Your task to perform on an android device: change timer sound Image 0: 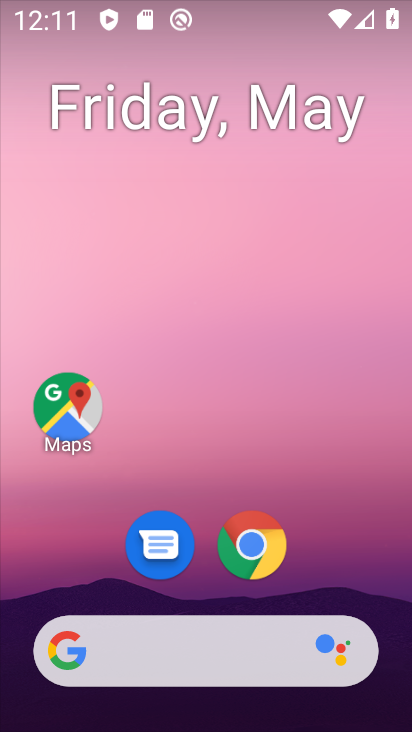
Step 0: drag from (302, 580) to (287, 66)
Your task to perform on an android device: change timer sound Image 1: 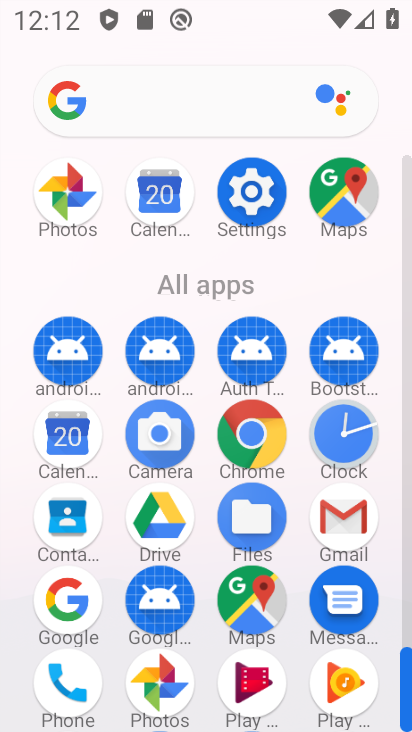
Step 1: click (350, 458)
Your task to perform on an android device: change timer sound Image 2: 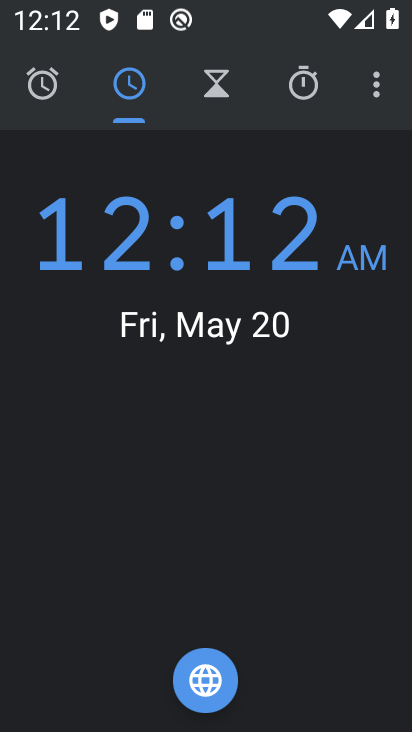
Step 2: click (373, 87)
Your task to perform on an android device: change timer sound Image 3: 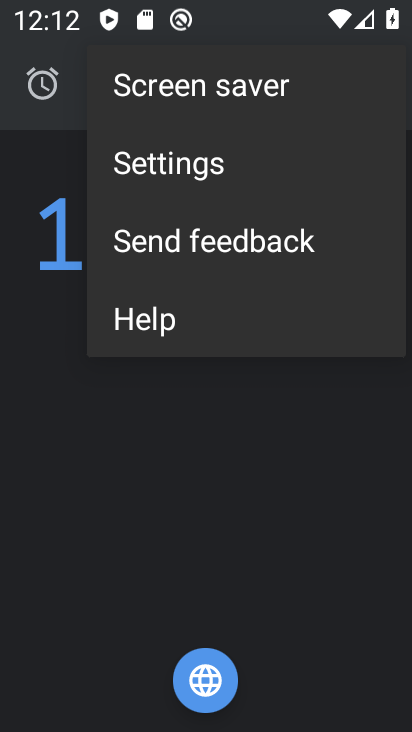
Step 3: click (183, 173)
Your task to perform on an android device: change timer sound Image 4: 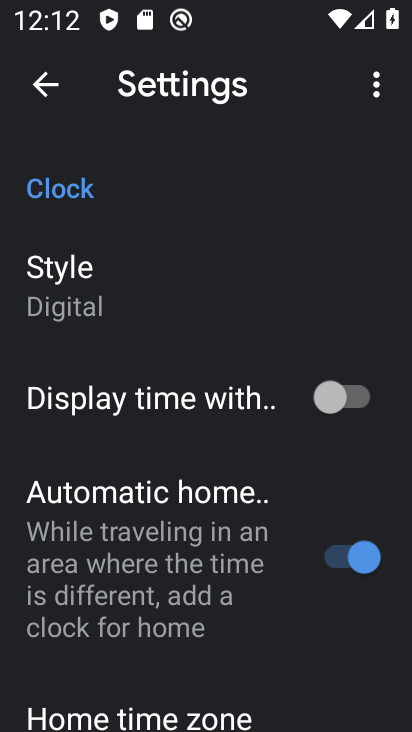
Step 4: drag from (171, 650) to (177, 314)
Your task to perform on an android device: change timer sound Image 5: 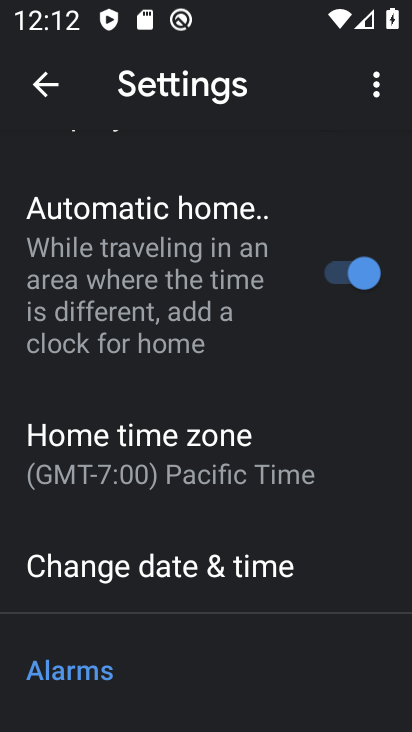
Step 5: drag from (161, 625) to (142, 434)
Your task to perform on an android device: change timer sound Image 6: 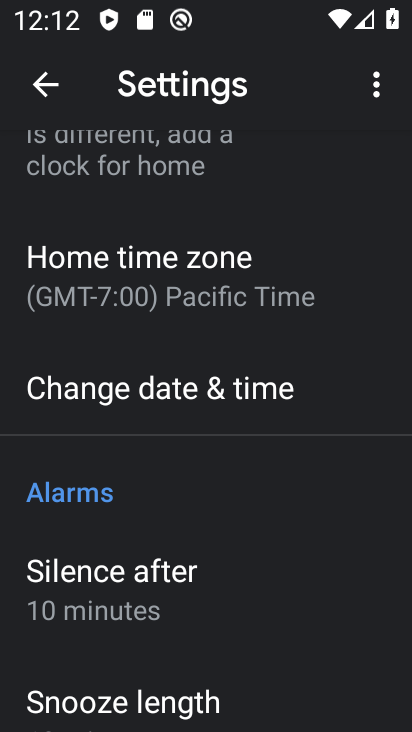
Step 6: drag from (178, 666) to (165, 345)
Your task to perform on an android device: change timer sound Image 7: 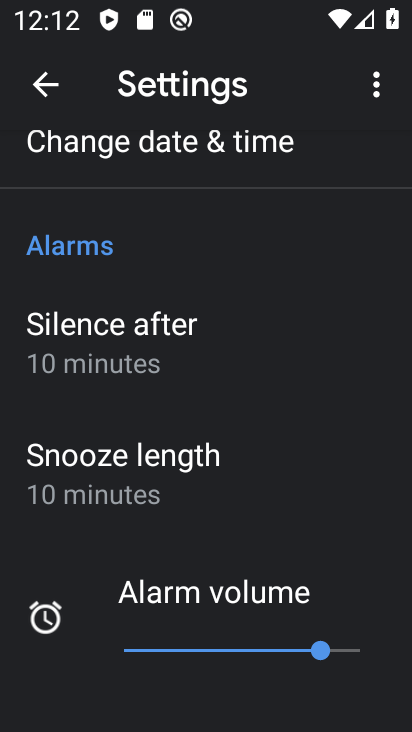
Step 7: drag from (172, 636) to (163, 385)
Your task to perform on an android device: change timer sound Image 8: 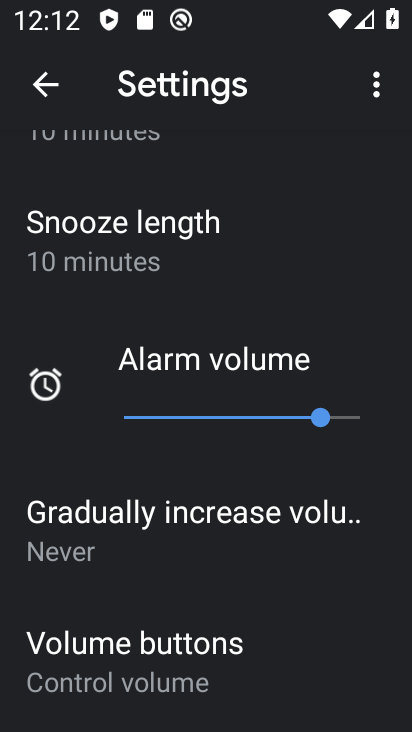
Step 8: drag from (264, 634) to (250, 377)
Your task to perform on an android device: change timer sound Image 9: 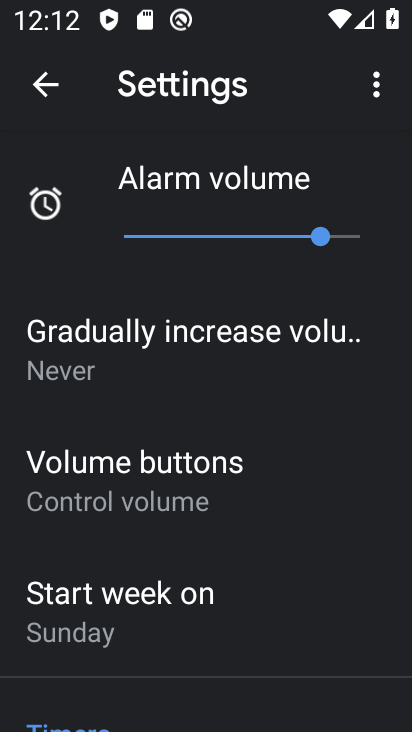
Step 9: drag from (237, 522) to (215, 263)
Your task to perform on an android device: change timer sound Image 10: 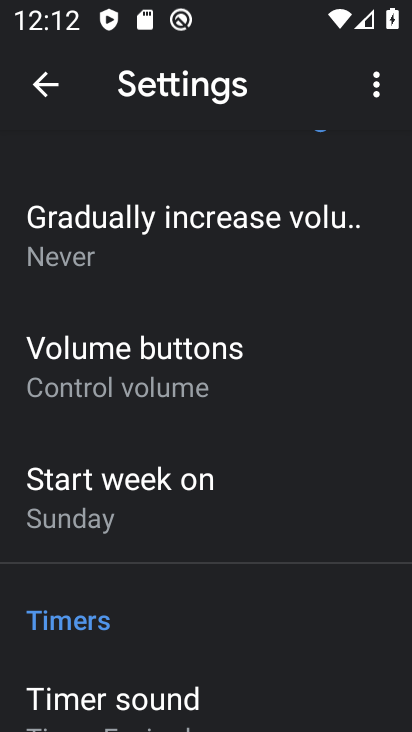
Step 10: click (209, 262)
Your task to perform on an android device: change timer sound Image 11: 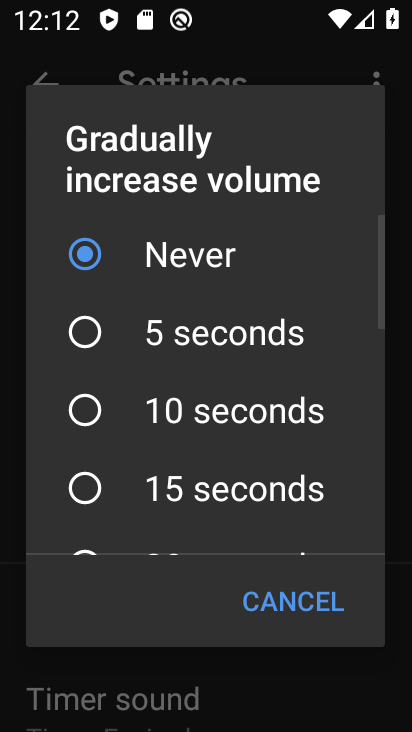
Step 11: click (321, 607)
Your task to perform on an android device: change timer sound Image 12: 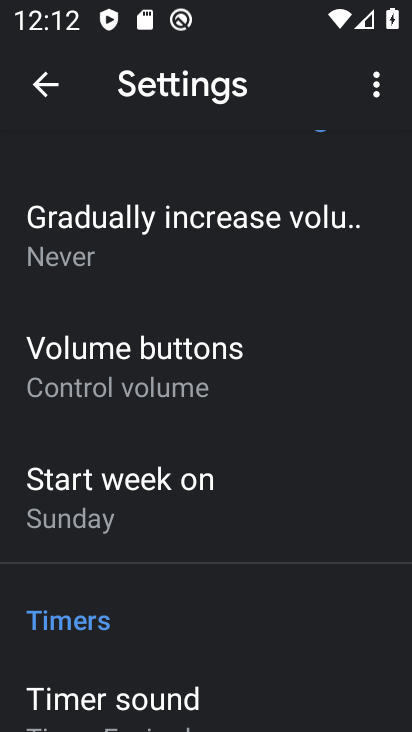
Step 12: drag from (273, 641) to (243, 303)
Your task to perform on an android device: change timer sound Image 13: 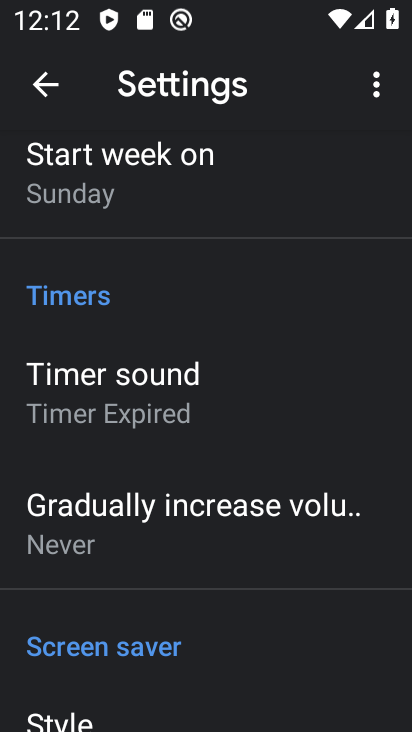
Step 13: click (111, 386)
Your task to perform on an android device: change timer sound Image 14: 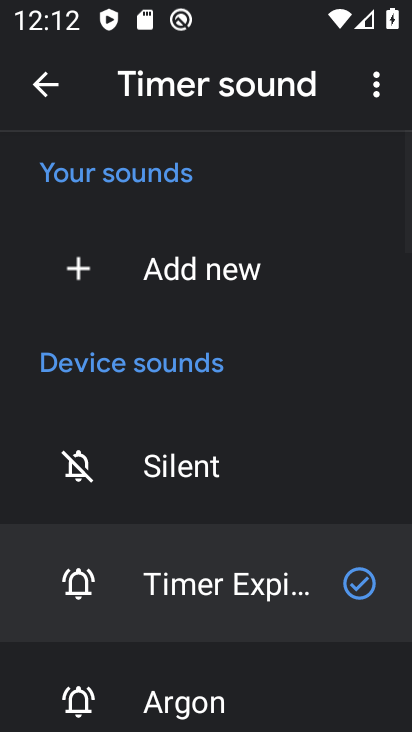
Step 14: click (163, 714)
Your task to perform on an android device: change timer sound Image 15: 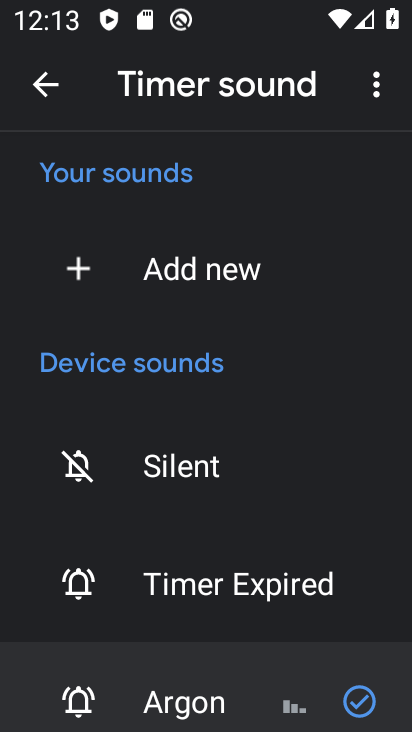
Step 15: task complete